Your task to perform on an android device: Open settings Image 0: 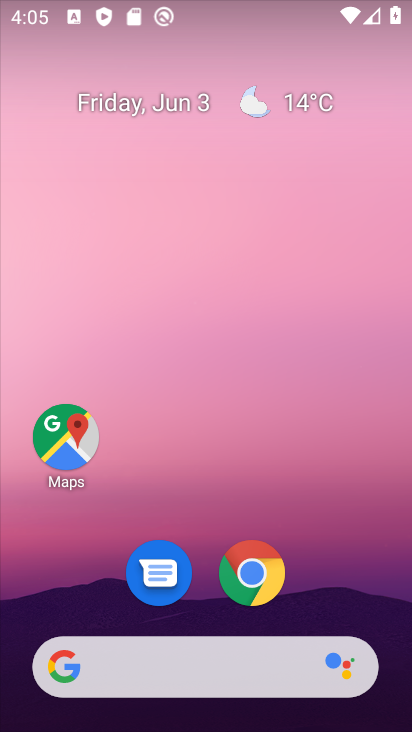
Step 0: click (385, 1)
Your task to perform on an android device: Open settings Image 1: 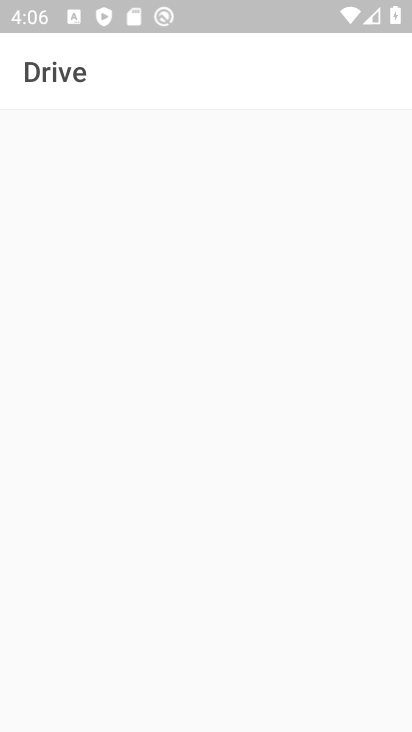
Step 1: press home button
Your task to perform on an android device: Open settings Image 2: 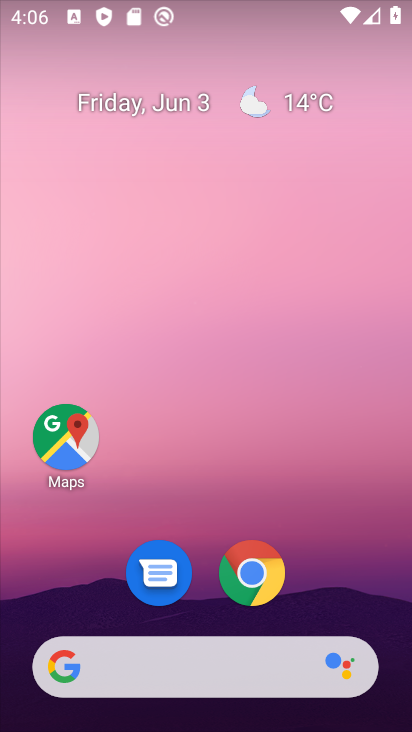
Step 2: drag from (309, 628) to (359, 3)
Your task to perform on an android device: Open settings Image 3: 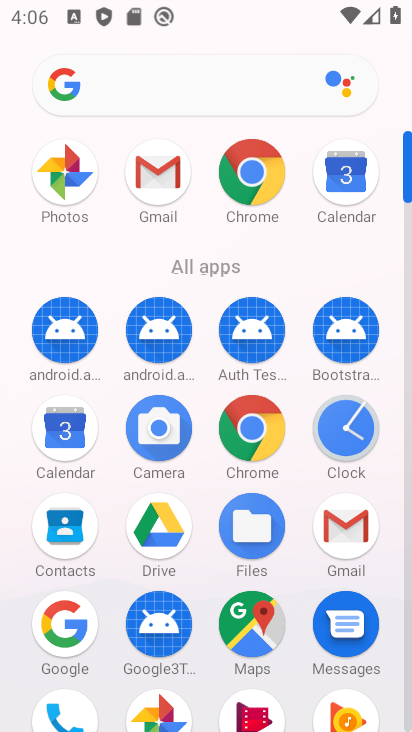
Step 3: drag from (303, 568) to (307, 108)
Your task to perform on an android device: Open settings Image 4: 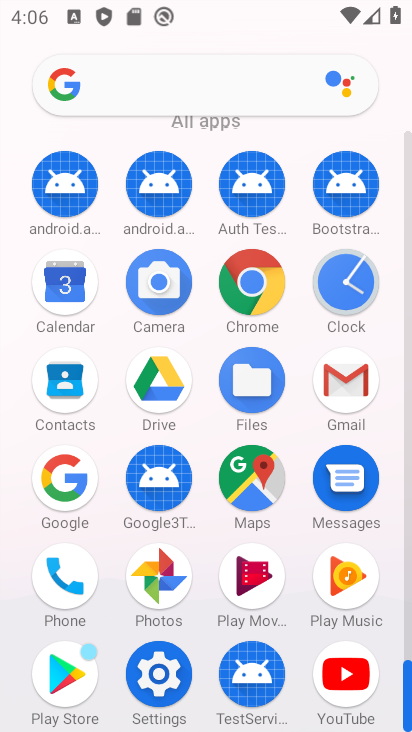
Step 4: click (167, 668)
Your task to perform on an android device: Open settings Image 5: 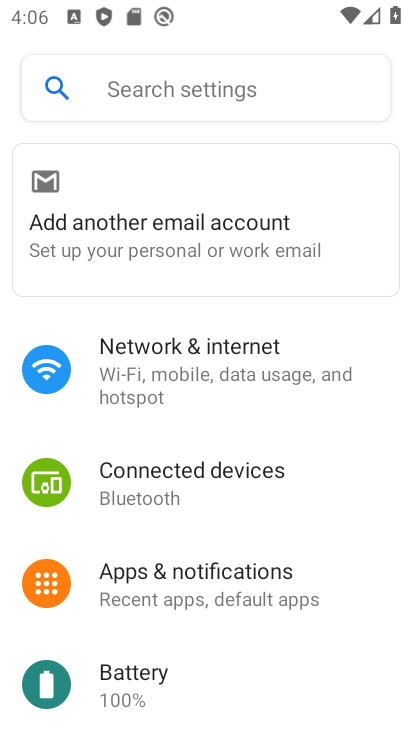
Step 5: task complete